Your task to perform on an android device: Do I have any events this weekend? Image 0: 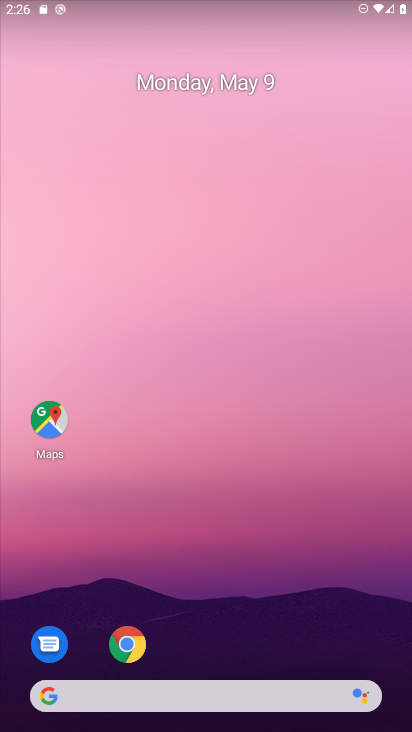
Step 0: click (124, 665)
Your task to perform on an android device: Do I have any events this weekend? Image 1: 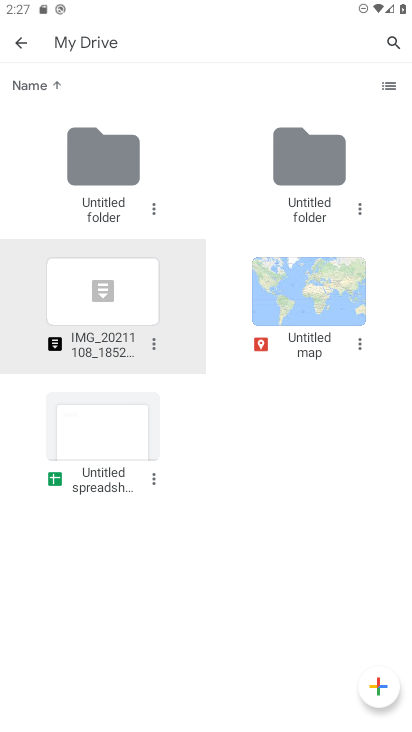
Step 1: press home button
Your task to perform on an android device: Do I have any events this weekend? Image 2: 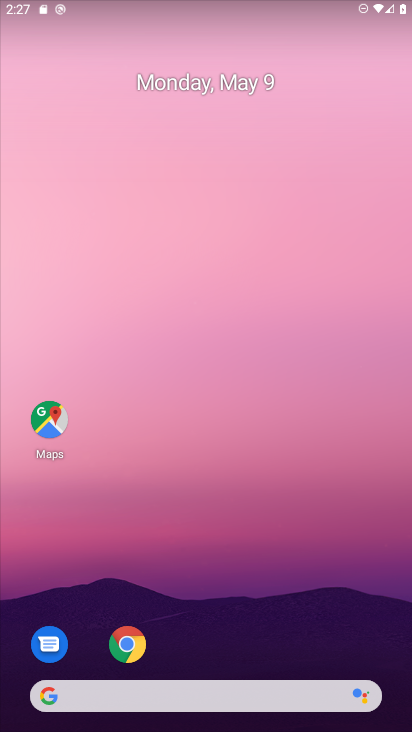
Step 2: drag from (227, 633) to (214, 85)
Your task to perform on an android device: Do I have any events this weekend? Image 3: 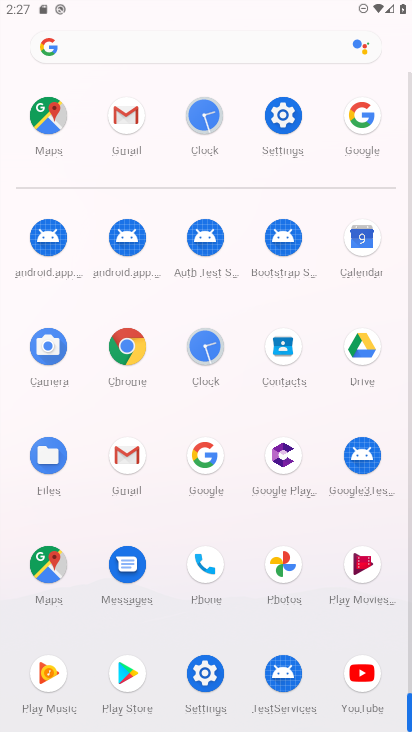
Step 3: click (365, 263)
Your task to perform on an android device: Do I have any events this weekend? Image 4: 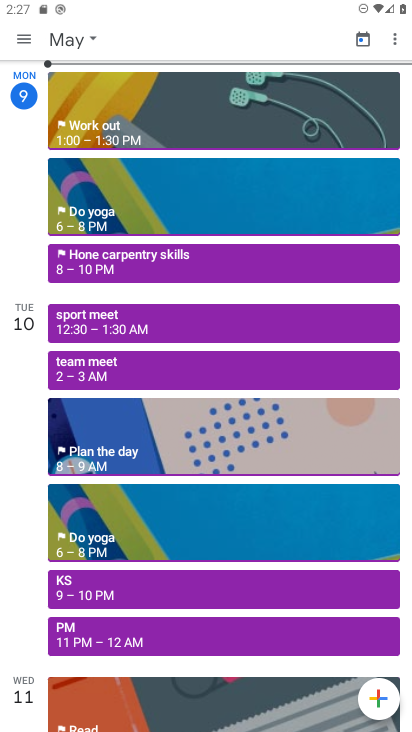
Step 4: press home button
Your task to perform on an android device: Do I have any events this weekend? Image 5: 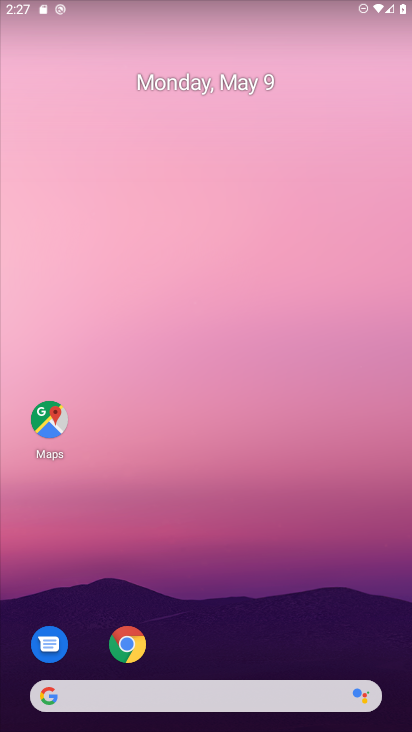
Step 5: drag from (279, 580) to (261, 210)
Your task to perform on an android device: Do I have any events this weekend? Image 6: 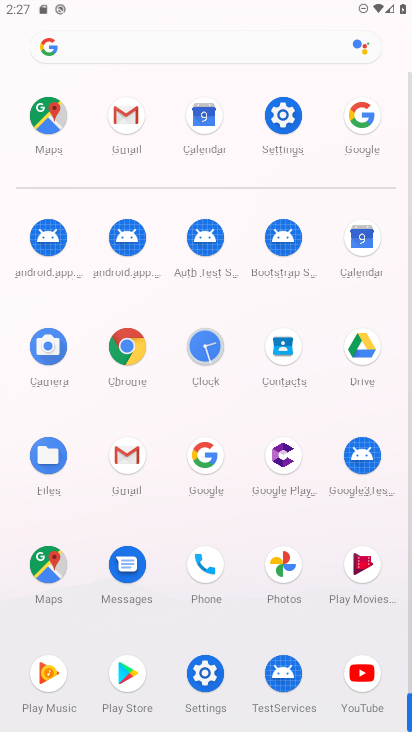
Step 6: click (353, 260)
Your task to perform on an android device: Do I have any events this weekend? Image 7: 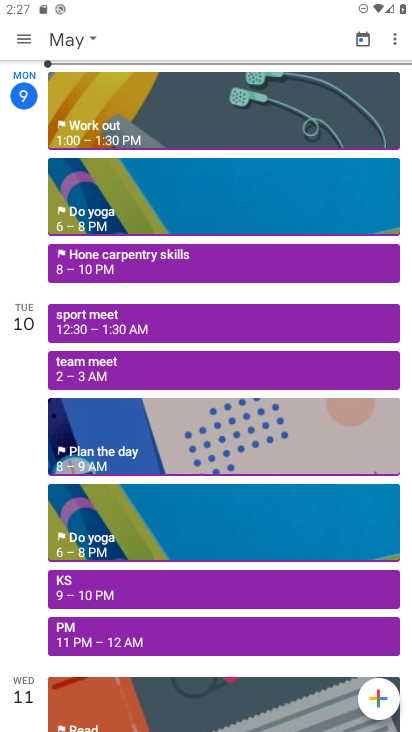
Step 7: click (30, 38)
Your task to perform on an android device: Do I have any events this weekend? Image 8: 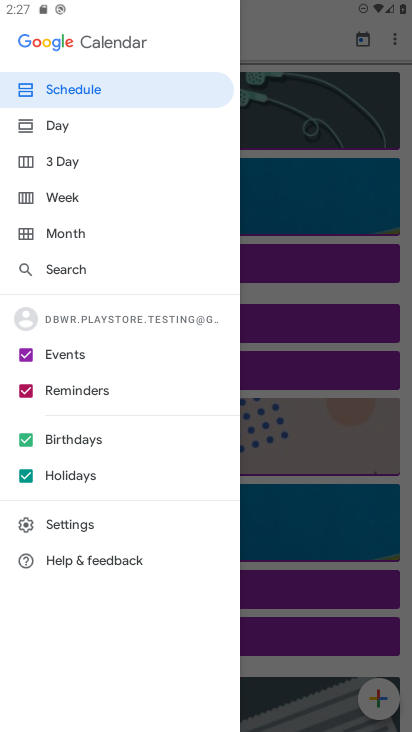
Step 8: click (71, 187)
Your task to perform on an android device: Do I have any events this weekend? Image 9: 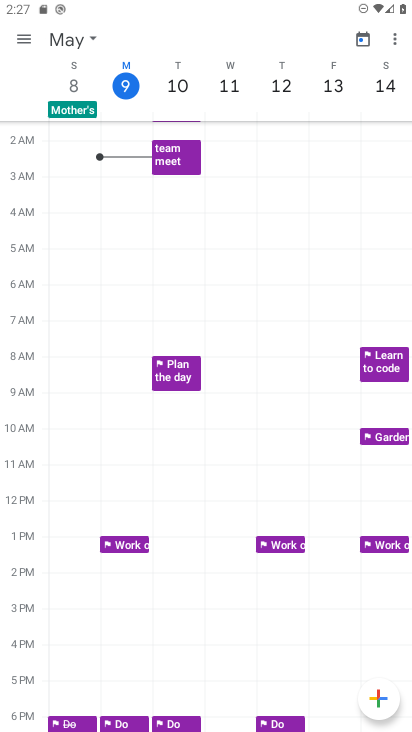
Step 9: click (26, 42)
Your task to perform on an android device: Do I have any events this weekend? Image 10: 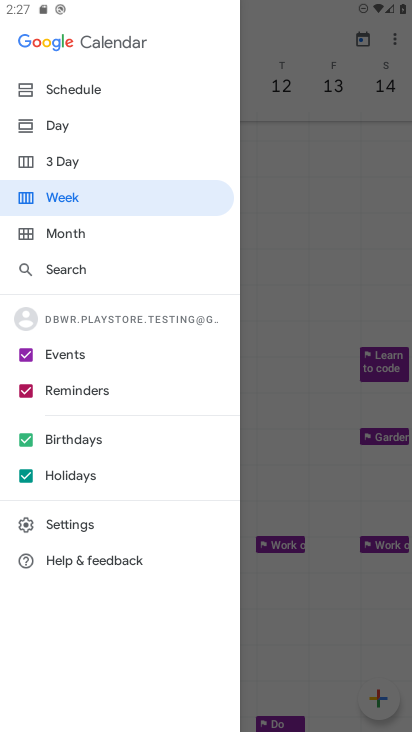
Step 10: click (90, 197)
Your task to perform on an android device: Do I have any events this weekend? Image 11: 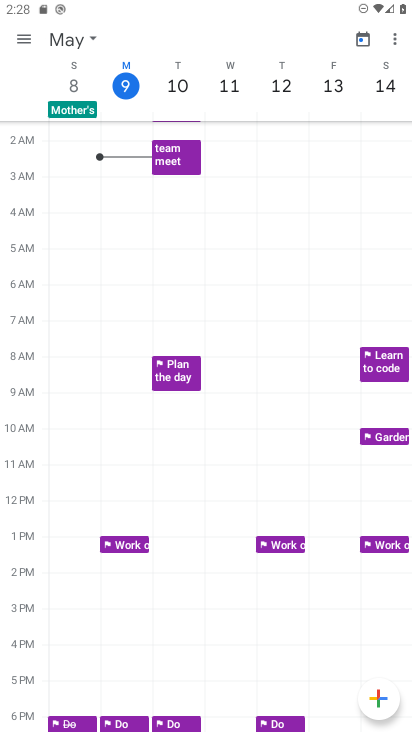
Step 11: task complete